Your task to perform on an android device: toggle notification dots Image 0: 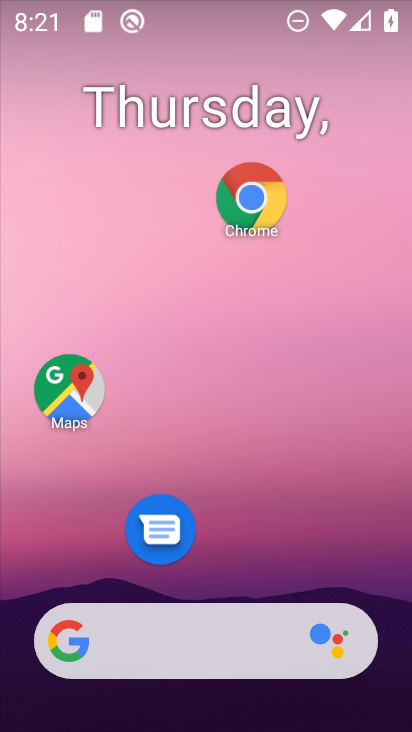
Step 0: drag from (206, 578) to (238, 0)
Your task to perform on an android device: toggle notification dots Image 1: 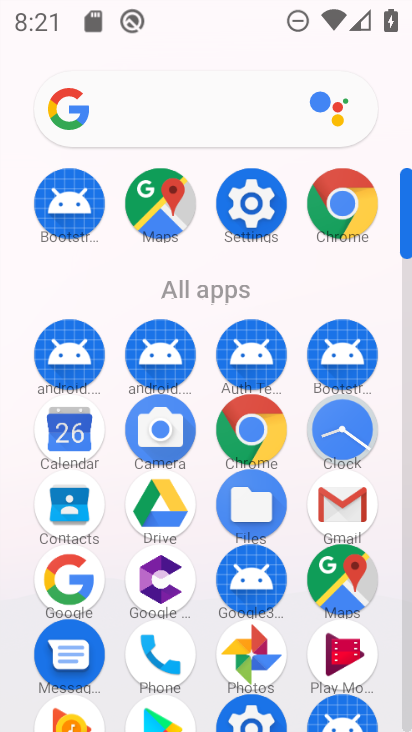
Step 1: click (237, 203)
Your task to perform on an android device: toggle notification dots Image 2: 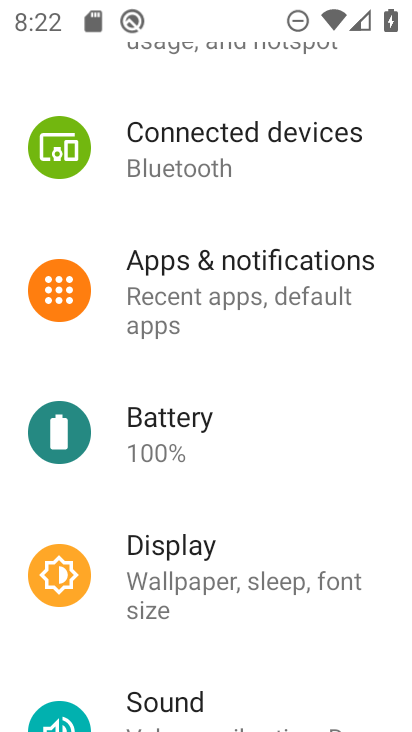
Step 2: drag from (244, 668) to (205, 178)
Your task to perform on an android device: toggle notification dots Image 3: 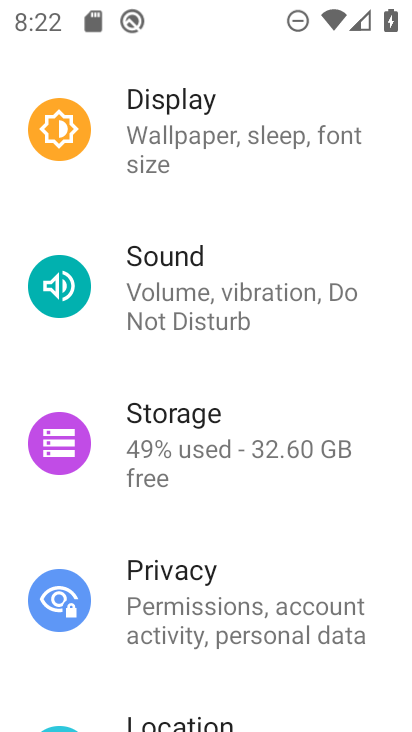
Step 3: drag from (177, 213) to (213, 631)
Your task to perform on an android device: toggle notification dots Image 4: 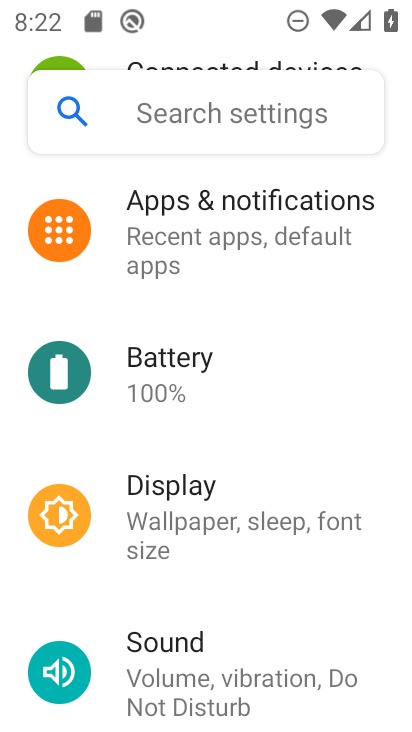
Step 4: click (174, 246)
Your task to perform on an android device: toggle notification dots Image 5: 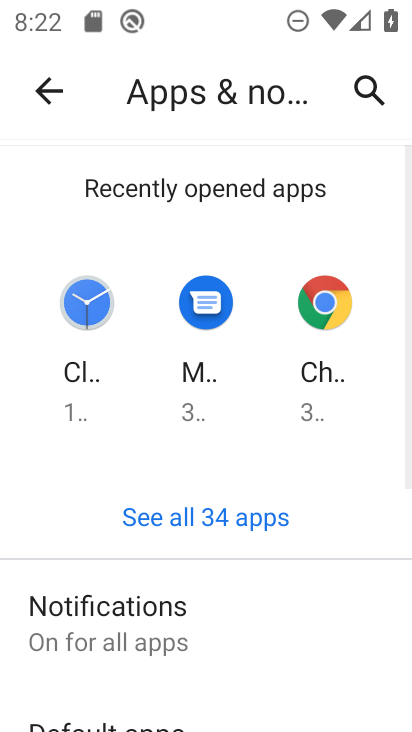
Step 5: drag from (194, 680) to (240, 389)
Your task to perform on an android device: toggle notification dots Image 6: 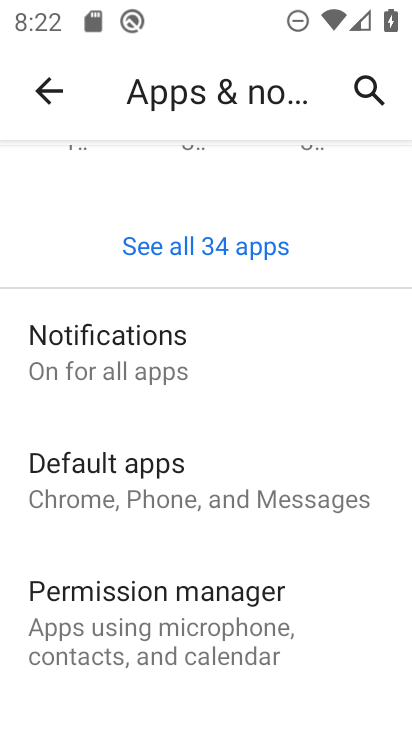
Step 6: click (149, 369)
Your task to perform on an android device: toggle notification dots Image 7: 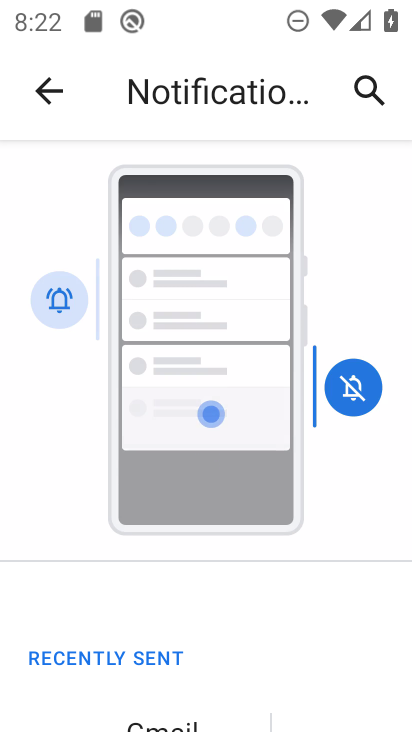
Step 7: drag from (228, 663) to (284, 195)
Your task to perform on an android device: toggle notification dots Image 8: 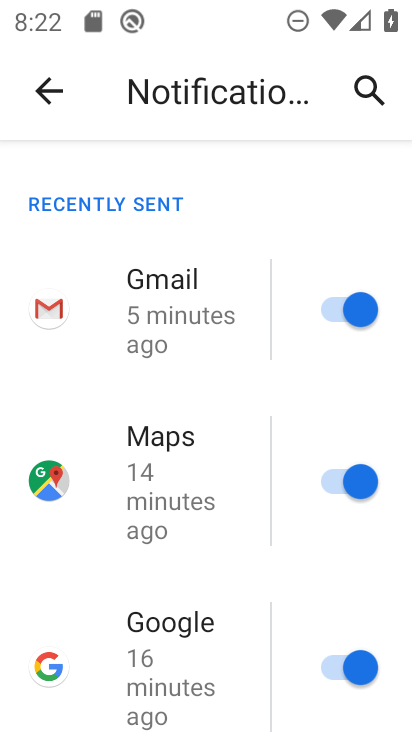
Step 8: drag from (205, 660) to (237, 332)
Your task to perform on an android device: toggle notification dots Image 9: 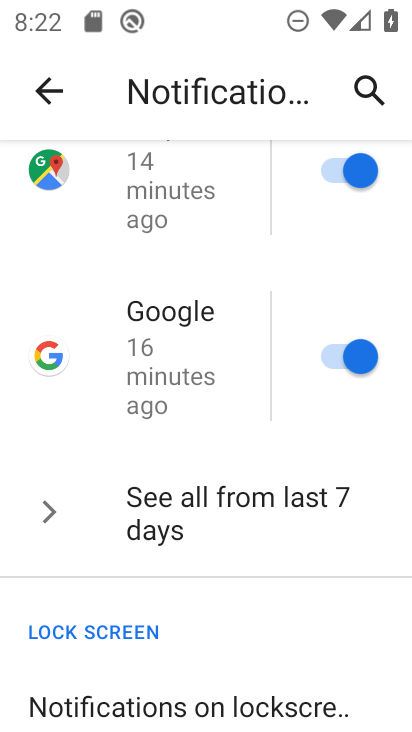
Step 9: drag from (203, 484) to (215, 380)
Your task to perform on an android device: toggle notification dots Image 10: 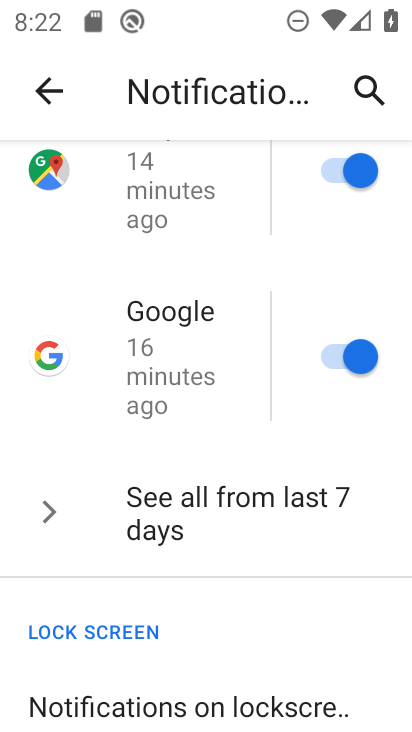
Step 10: drag from (175, 681) to (184, 380)
Your task to perform on an android device: toggle notification dots Image 11: 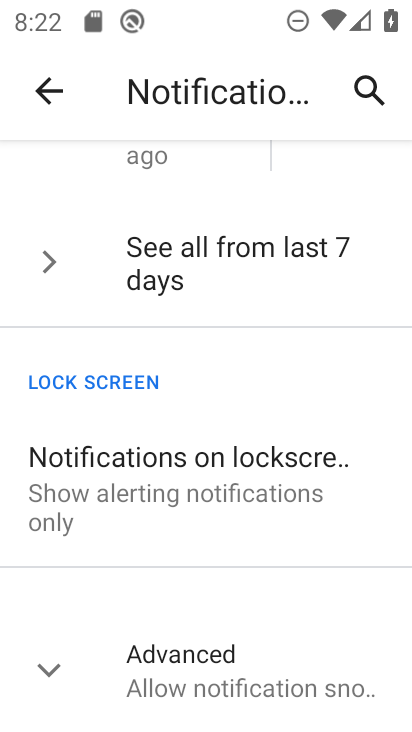
Step 11: click (164, 660)
Your task to perform on an android device: toggle notification dots Image 12: 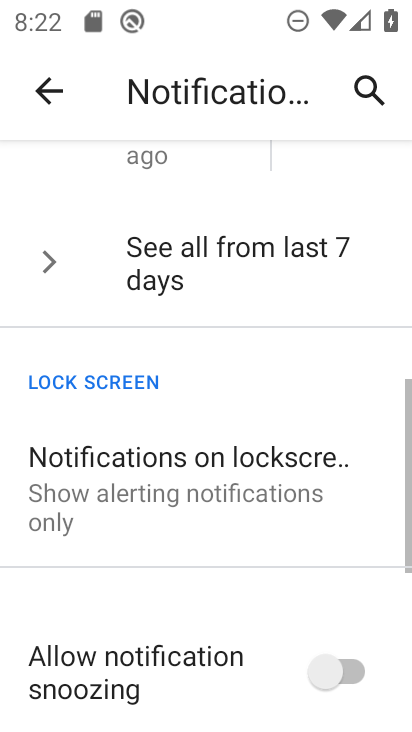
Step 12: drag from (187, 688) to (222, 247)
Your task to perform on an android device: toggle notification dots Image 13: 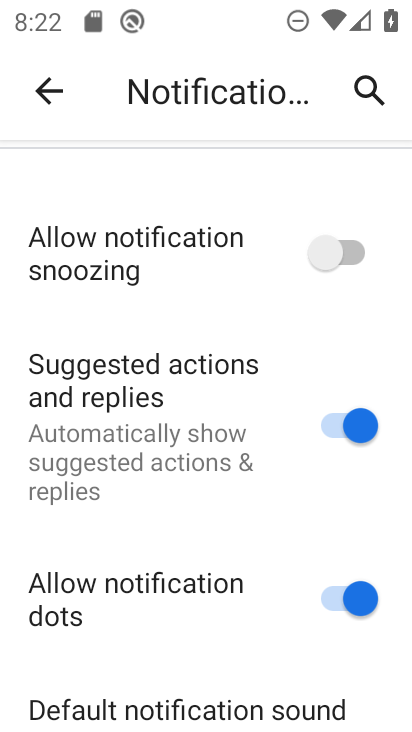
Step 13: click (329, 601)
Your task to perform on an android device: toggle notification dots Image 14: 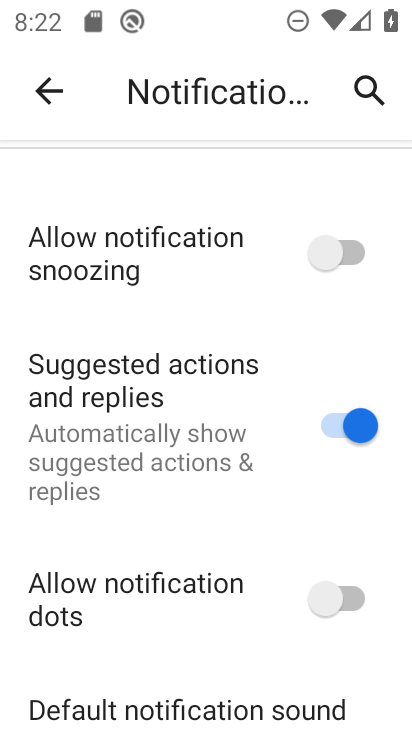
Step 14: task complete